Your task to perform on an android device: turn on data saver in the chrome app Image 0: 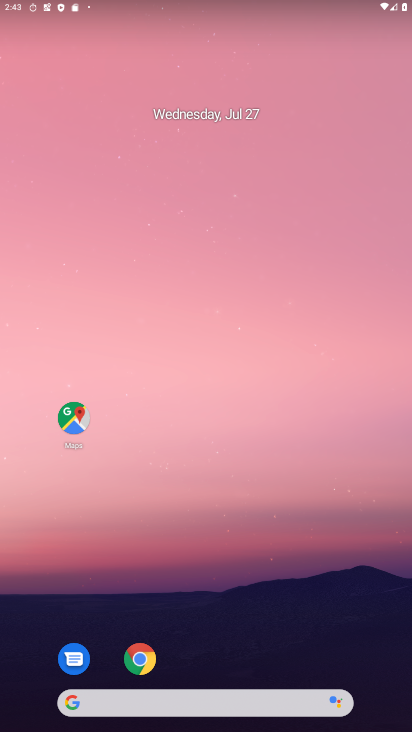
Step 0: click (135, 660)
Your task to perform on an android device: turn on data saver in the chrome app Image 1: 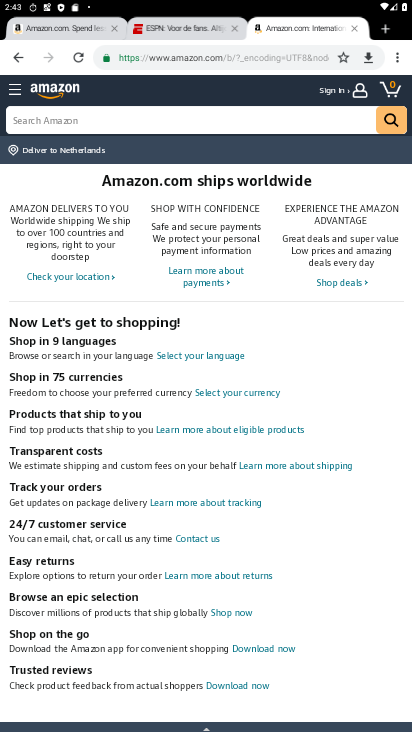
Step 1: click (398, 61)
Your task to perform on an android device: turn on data saver in the chrome app Image 2: 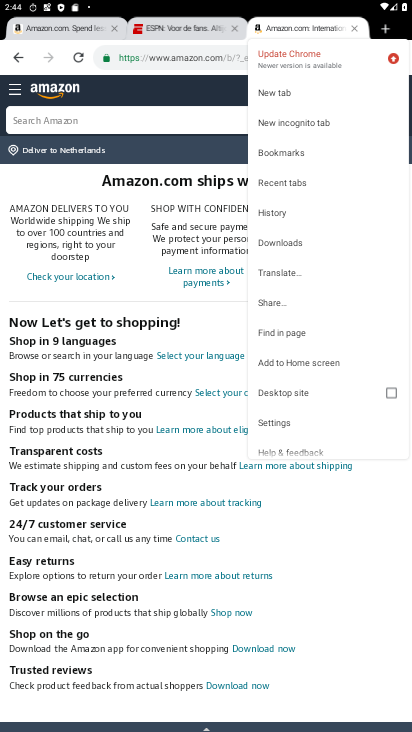
Step 2: click (275, 423)
Your task to perform on an android device: turn on data saver in the chrome app Image 3: 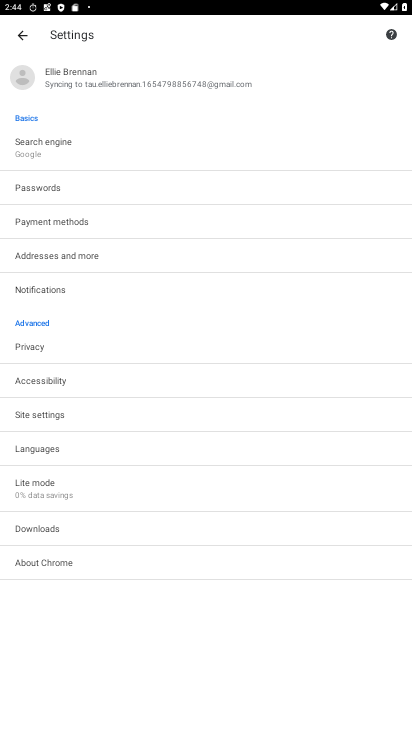
Step 3: click (39, 485)
Your task to perform on an android device: turn on data saver in the chrome app Image 4: 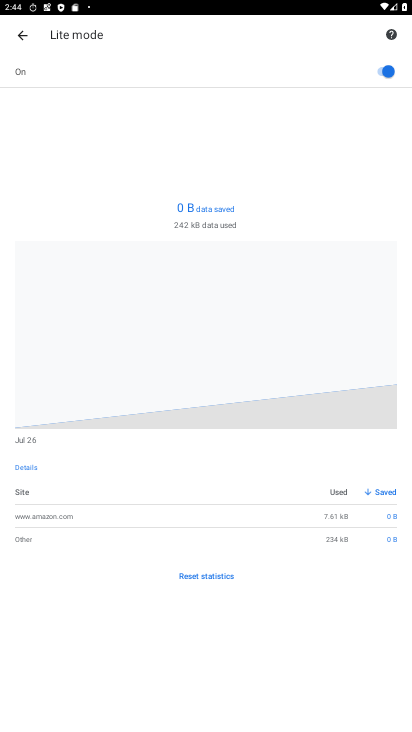
Step 4: task complete